Your task to perform on an android device: Go to settings Image 0: 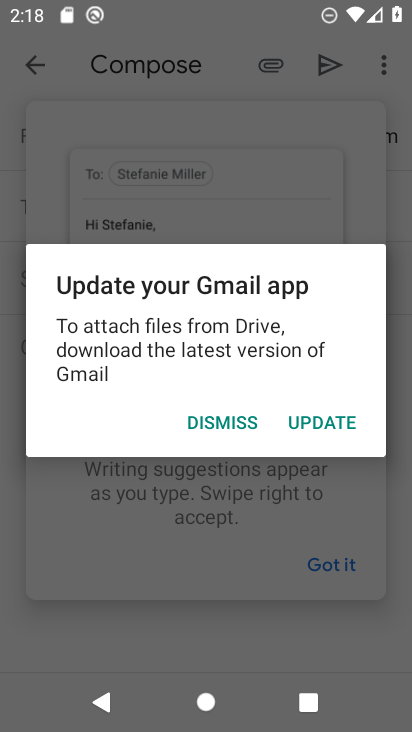
Step 0: press home button
Your task to perform on an android device: Go to settings Image 1: 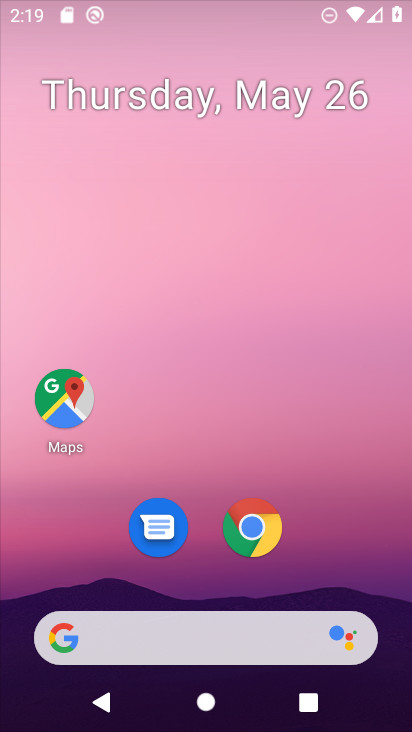
Step 1: drag from (166, 502) to (218, 112)
Your task to perform on an android device: Go to settings Image 2: 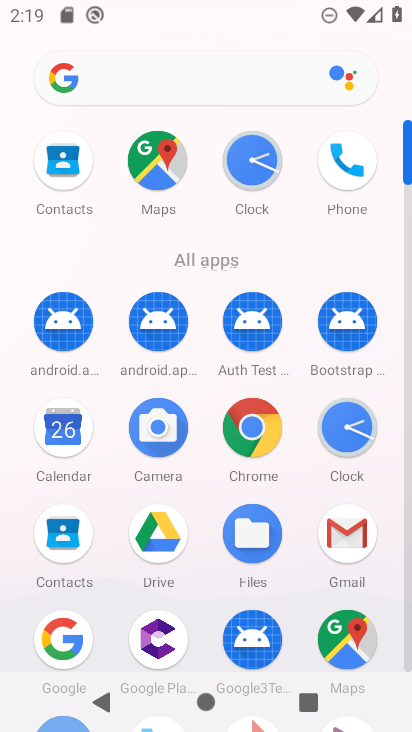
Step 2: drag from (237, 604) to (293, 64)
Your task to perform on an android device: Go to settings Image 3: 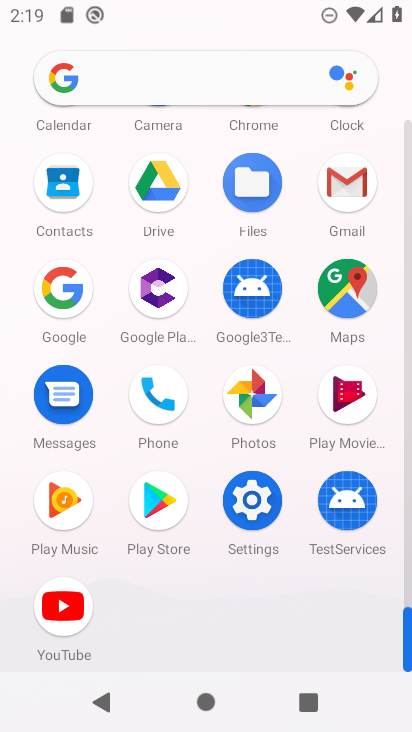
Step 3: click (260, 505)
Your task to perform on an android device: Go to settings Image 4: 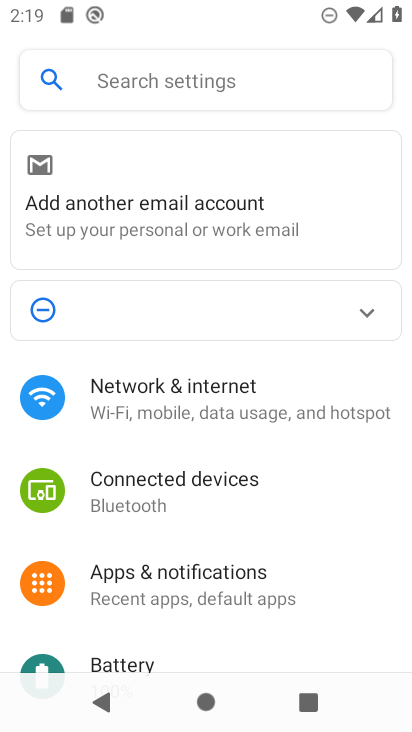
Step 4: task complete